Your task to perform on an android device: turn off javascript in the chrome app Image 0: 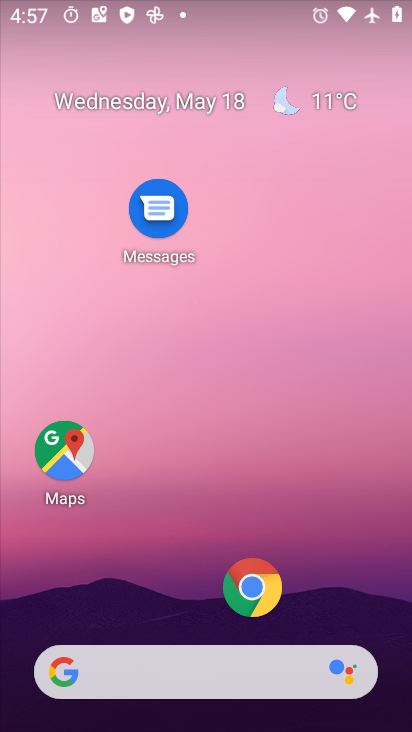
Step 0: drag from (204, 596) to (236, 125)
Your task to perform on an android device: turn off javascript in the chrome app Image 1: 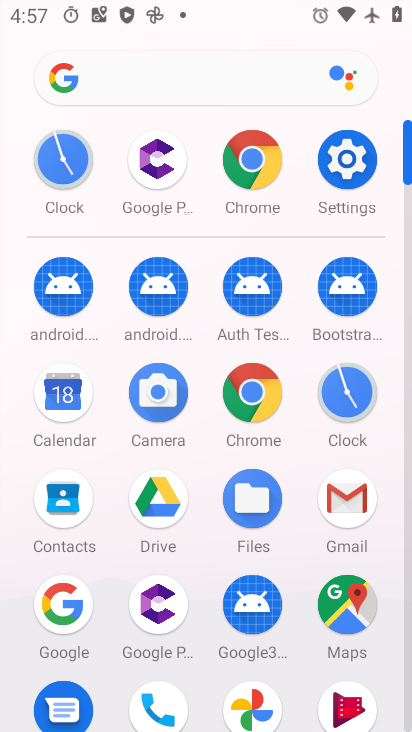
Step 1: click (268, 189)
Your task to perform on an android device: turn off javascript in the chrome app Image 2: 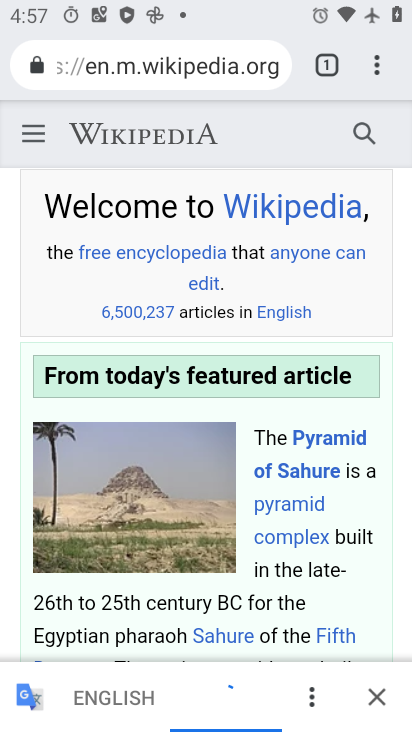
Step 2: click (376, 67)
Your task to perform on an android device: turn off javascript in the chrome app Image 3: 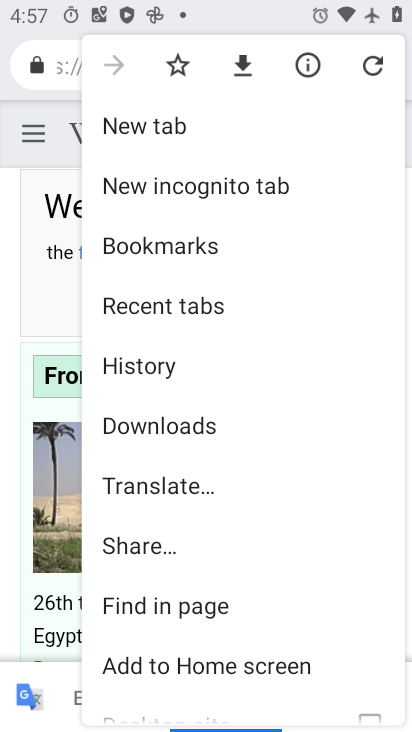
Step 3: drag from (129, 623) to (151, 325)
Your task to perform on an android device: turn off javascript in the chrome app Image 4: 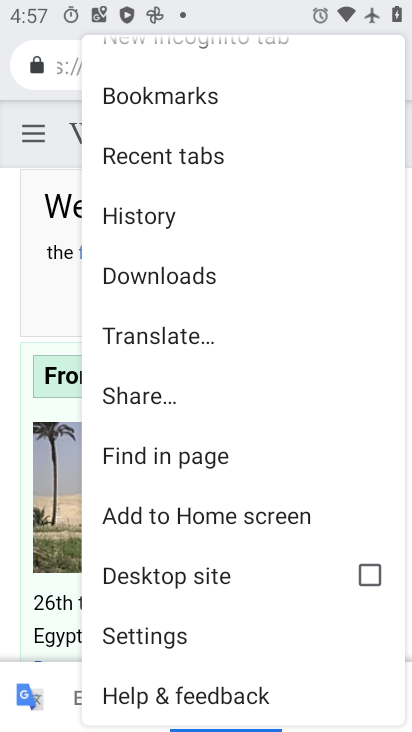
Step 4: click (176, 637)
Your task to perform on an android device: turn off javascript in the chrome app Image 5: 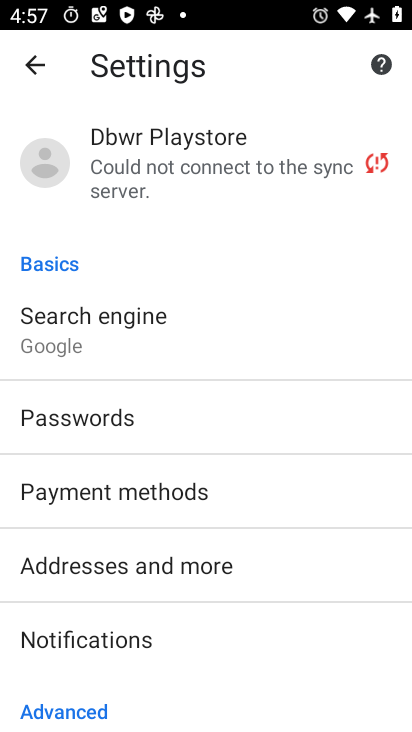
Step 5: drag from (183, 623) to (239, 313)
Your task to perform on an android device: turn off javascript in the chrome app Image 6: 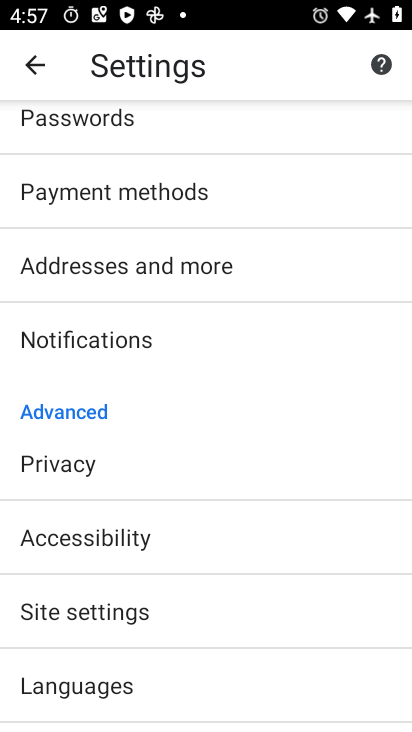
Step 6: click (96, 621)
Your task to perform on an android device: turn off javascript in the chrome app Image 7: 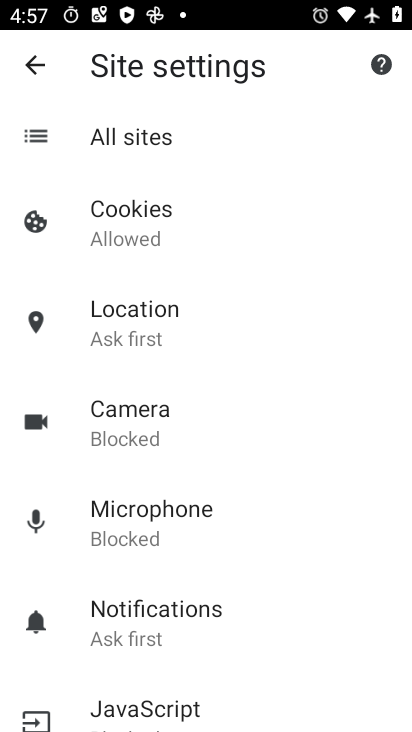
Step 7: drag from (178, 607) to (216, 231)
Your task to perform on an android device: turn off javascript in the chrome app Image 8: 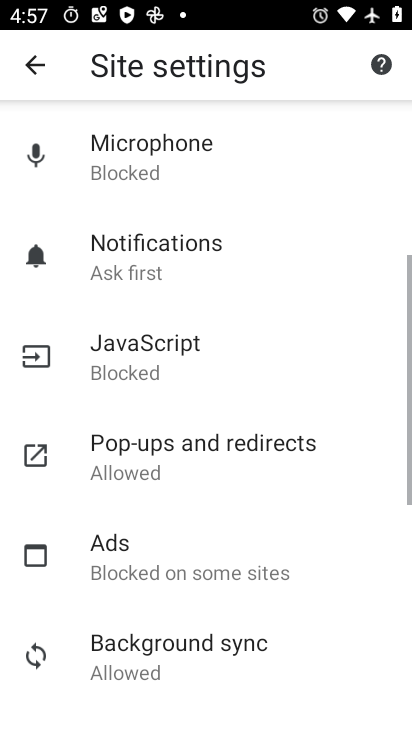
Step 8: click (194, 350)
Your task to perform on an android device: turn off javascript in the chrome app Image 9: 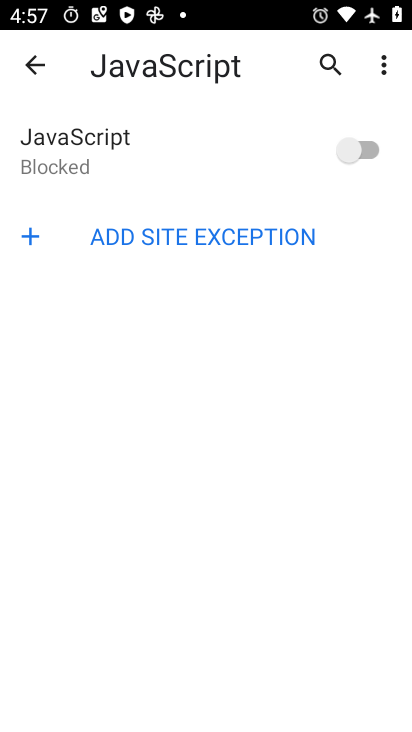
Step 9: task complete